Your task to perform on an android device: Open Google Chrome Image 0: 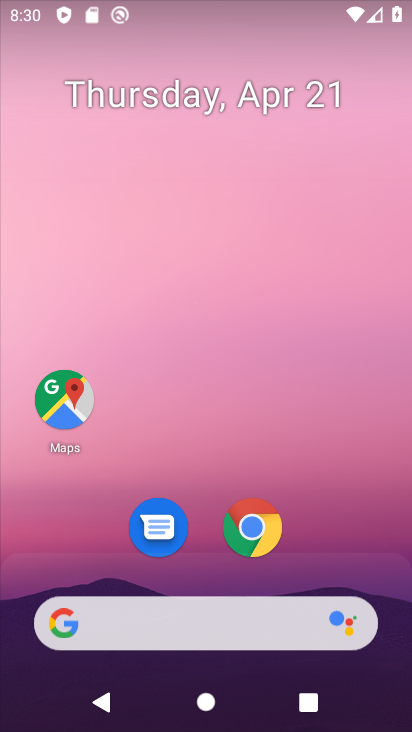
Step 0: drag from (169, 558) to (266, 99)
Your task to perform on an android device: Open Google Chrome Image 1: 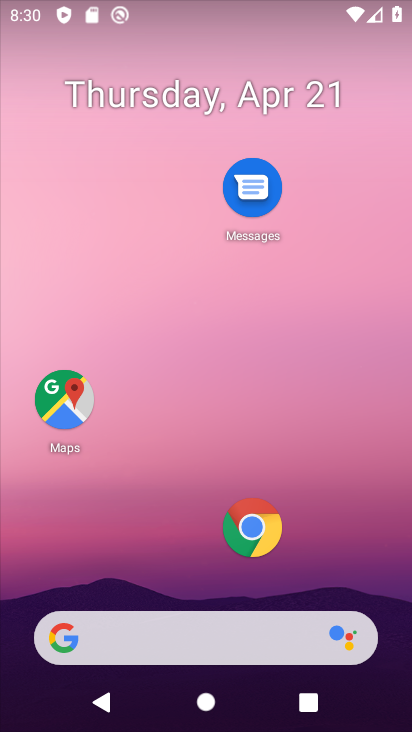
Step 1: drag from (165, 622) to (270, 175)
Your task to perform on an android device: Open Google Chrome Image 2: 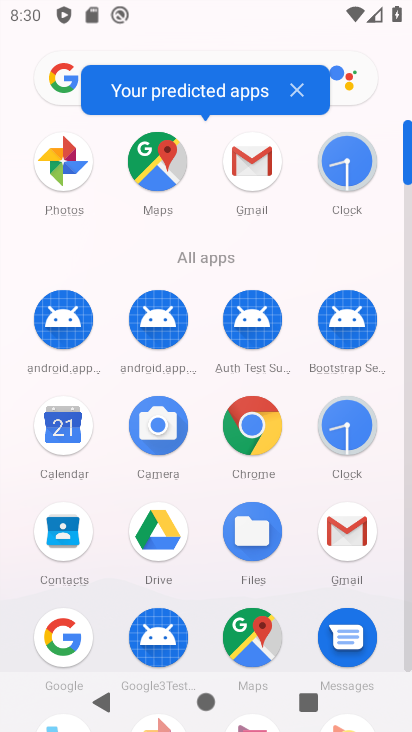
Step 2: click (255, 438)
Your task to perform on an android device: Open Google Chrome Image 3: 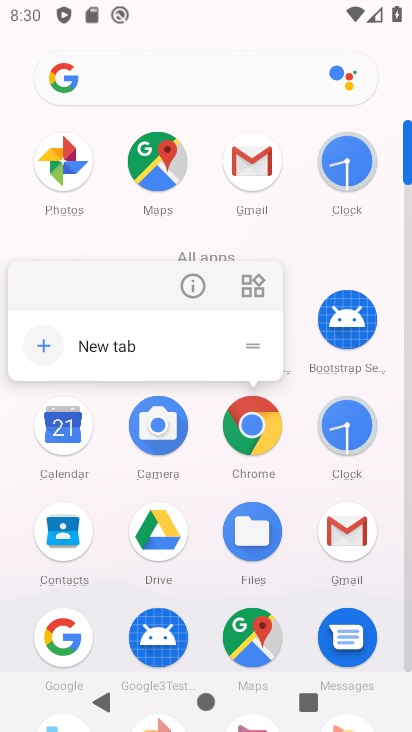
Step 3: click (255, 438)
Your task to perform on an android device: Open Google Chrome Image 4: 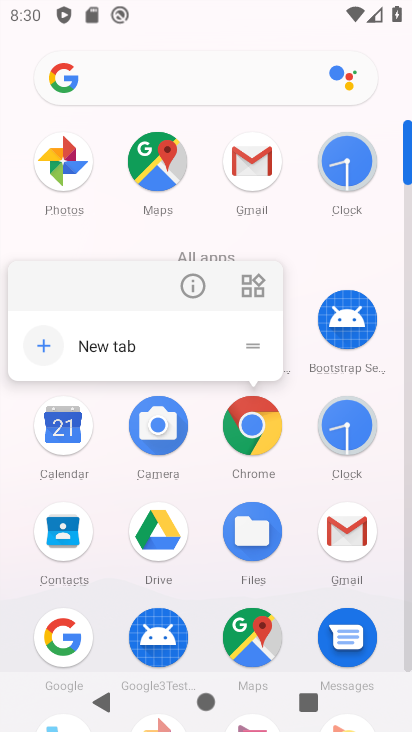
Step 4: click (256, 428)
Your task to perform on an android device: Open Google Chrome Image 5: 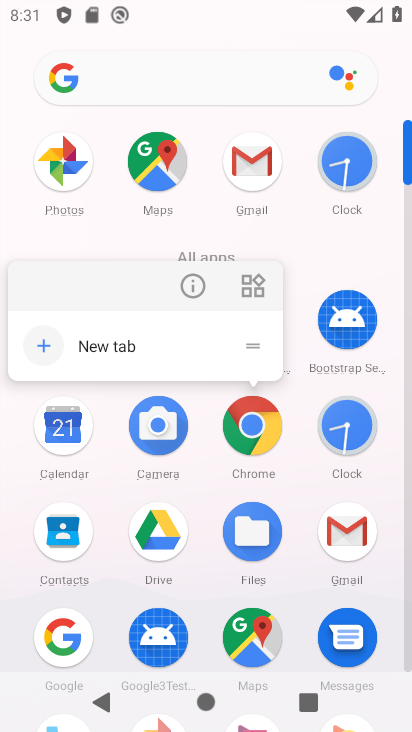
Step 5: click (253, 429)
Your task to perform on an android device: Open Google Chrome Image 6: 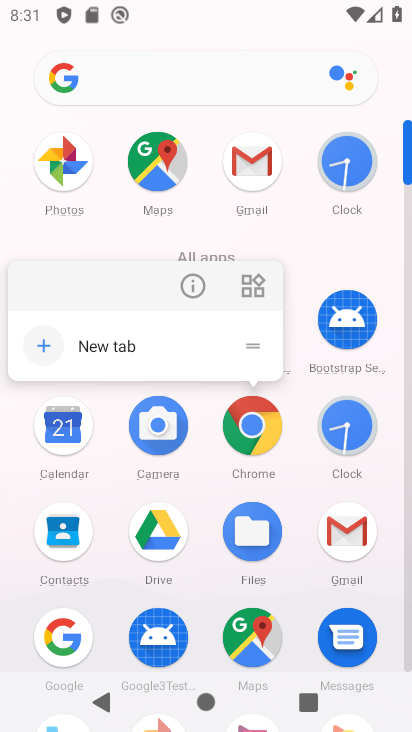
Step 6: click (258, 430)
Your task to perform on an android device: Open Google Chrome Image 7: 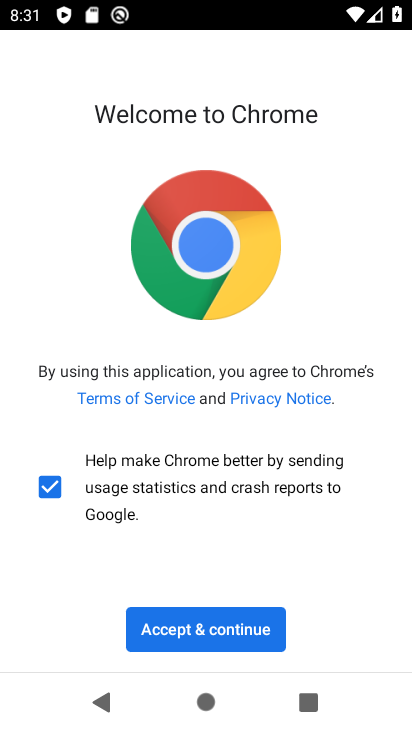
Step 7: click (212, 622)
Your task to perform on an android device: Open Google Chrome Image 8: 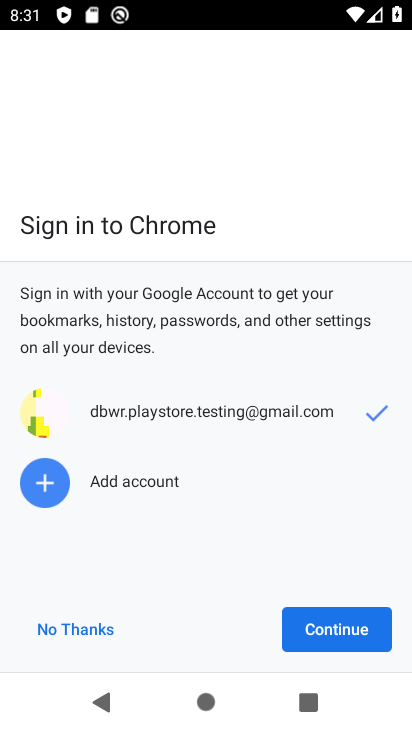
Step 8: click (327, 635)
Your task to perform on an android device: Open Google Chrome Image 9: 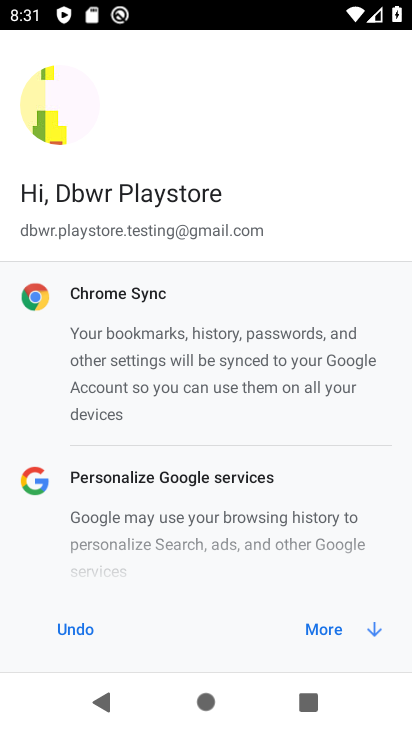
Step 9: click (327, 634)
Your task to perform on an android device: Open Google Chrome Image 10: 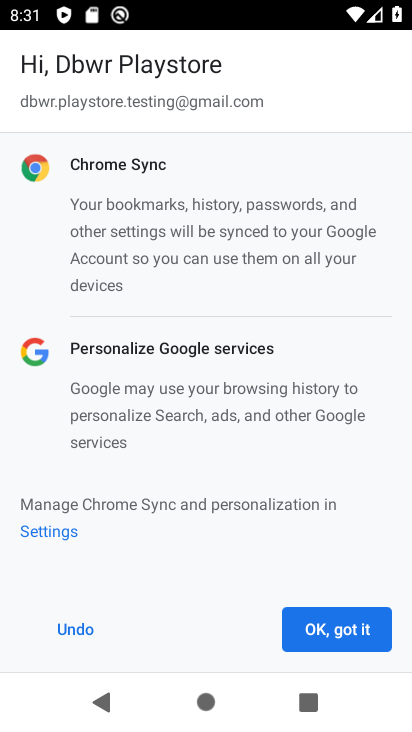
Step 10: click (328, 627)
Your task to perform on an android device: Open Google Chrome Image 11: 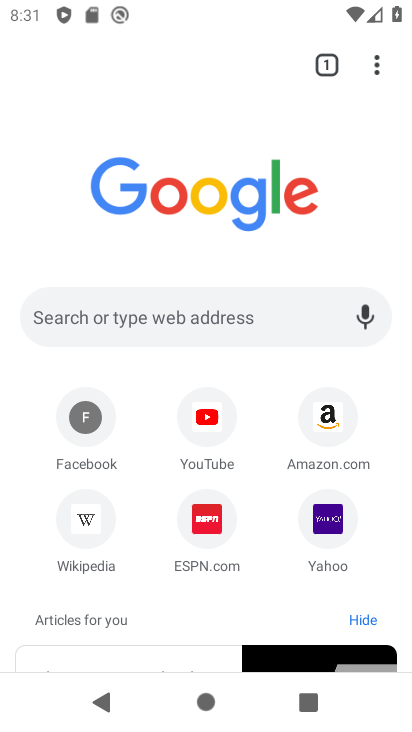
Step 11: task complete